Your task to perform on an android device: add a contact Image 0: 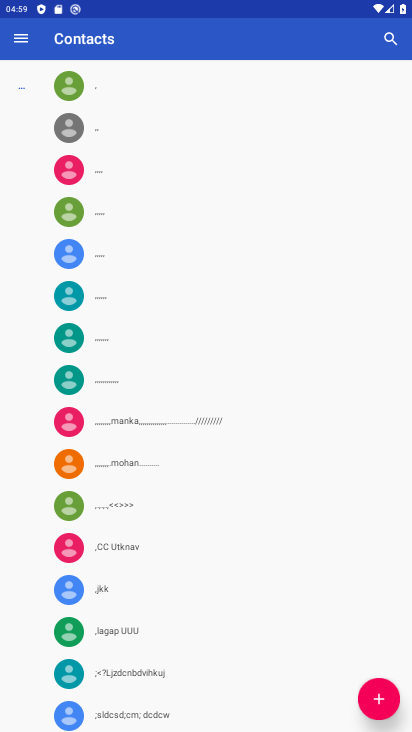
Step 0: click (387, 700)
Your task to perform on an android device: add a contact Image 1: 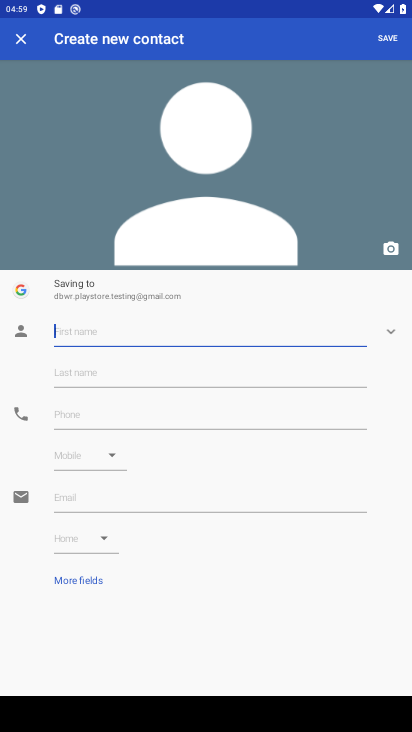
Step 1: click (76, 328)
Your task to perform on an android device: add a contact Image 2: 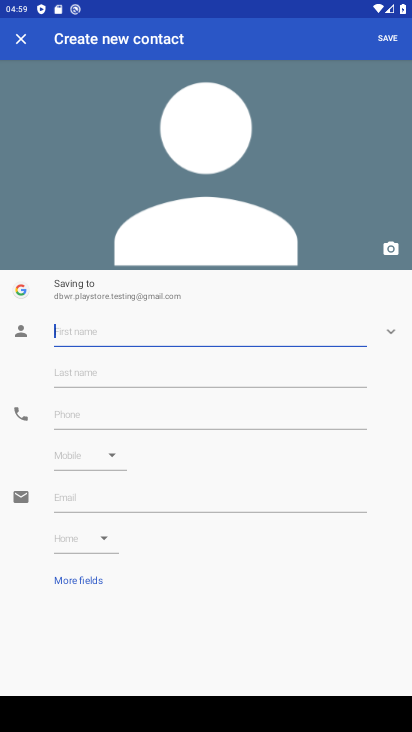
Step 2: type "vvf"
Your task to perform on an android device: add a contact Image 3: 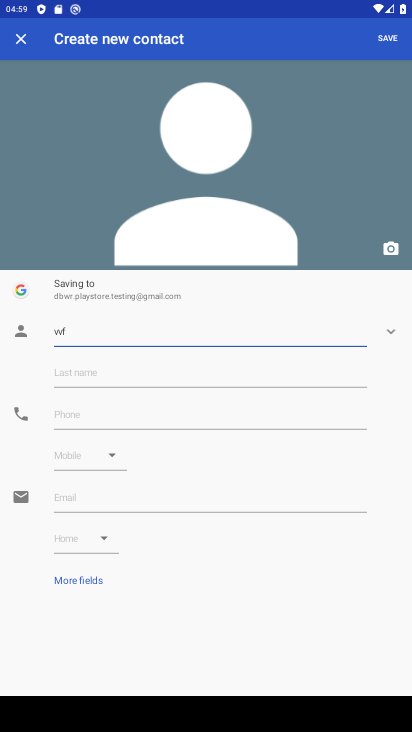
Step 3: click (81, 416)
Your task to perform on an android device: add a contact Image 4: 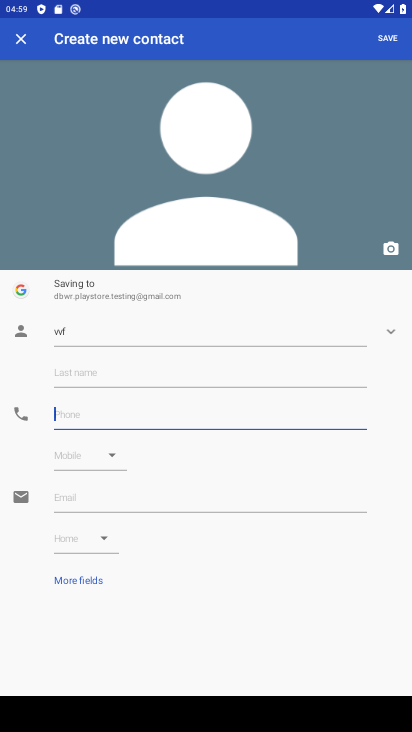
Step 4: type "6546"
Your task to perform on an android device: add a contact Image 5: 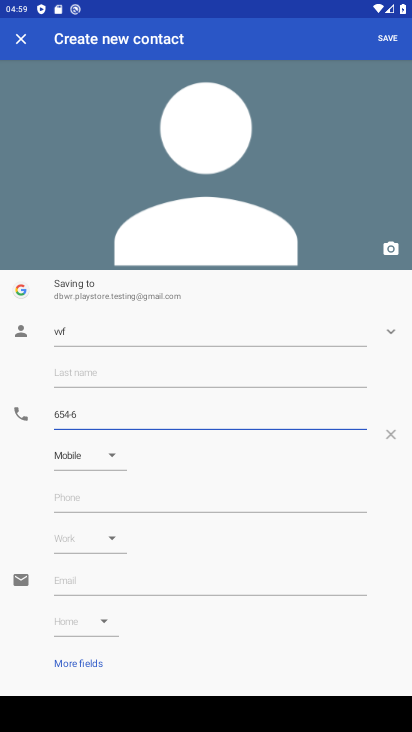
Step 5: click (389, 36)
Your task to perform on an android device: add a contact Image 6: 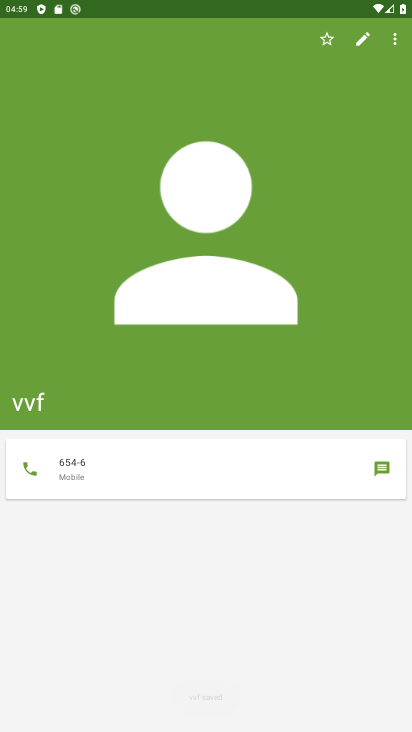
Step 6: task complete